Your task to perform on an android device: turn on translation in the chrome app Image 0: 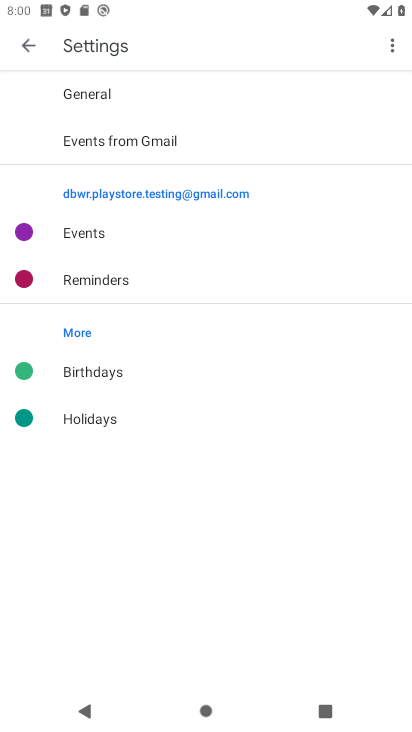
Step 0: press home button
Your task to perform on an android device: turn on translation in the chrome app Image 1: 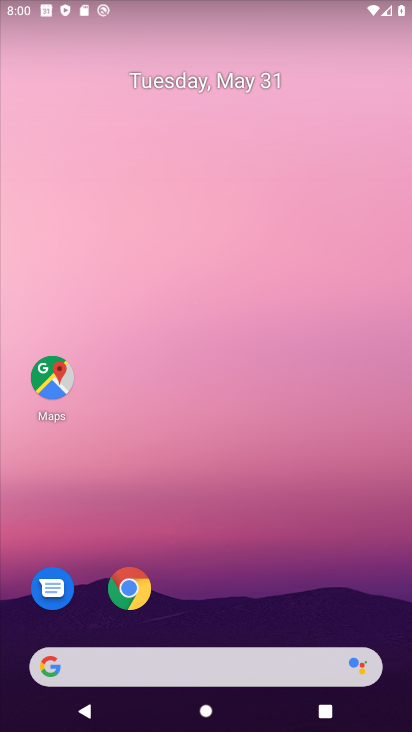
Step 1: click (114, 588)
Your task to perform on an android device: turn on translation in the chrome app Image 2: 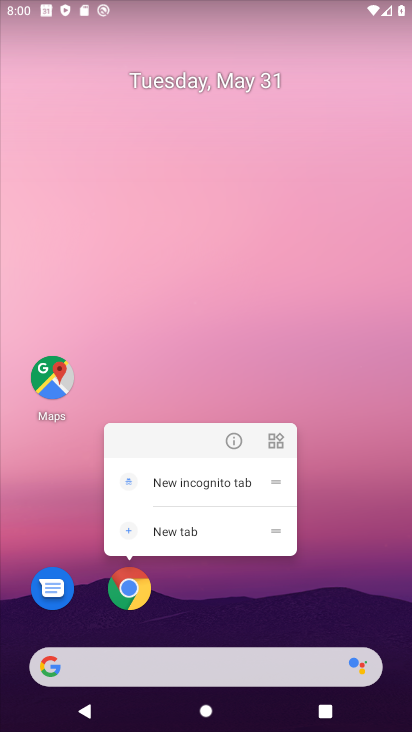
Step 2: click (126, 594)
Your task to perform on an android device: turn on translation in the chrome app Image 3: 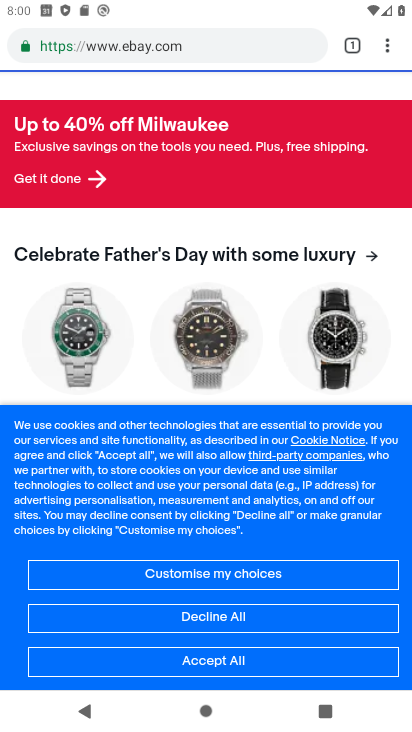
Step 3: click (385, 44)
Your task to perform on an android device: turn on translation in the chrome app Image 4: 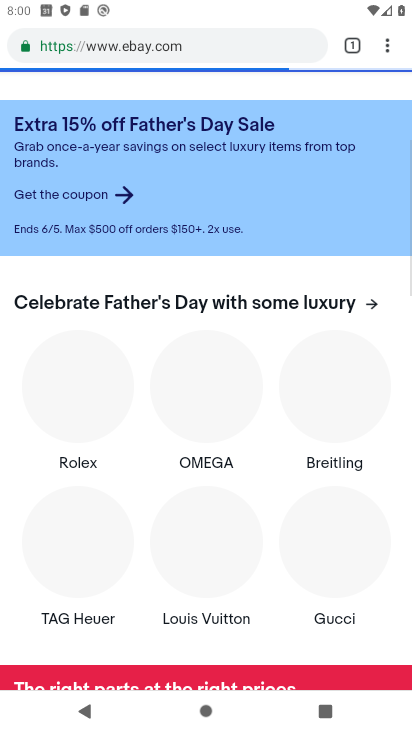
Step 4: click (387, 46)
Your task to perform on an android device: turn on translation in the chrome app Image 5: 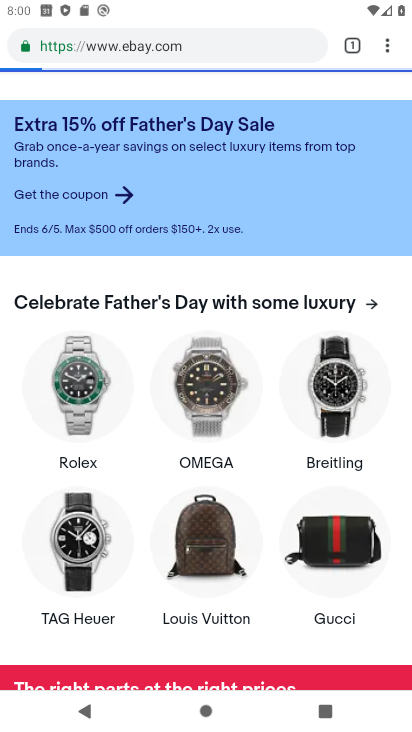
Step 5: click (393, 54)
Your task to perform on an android device: turn on translation in the chrome app Image 6: 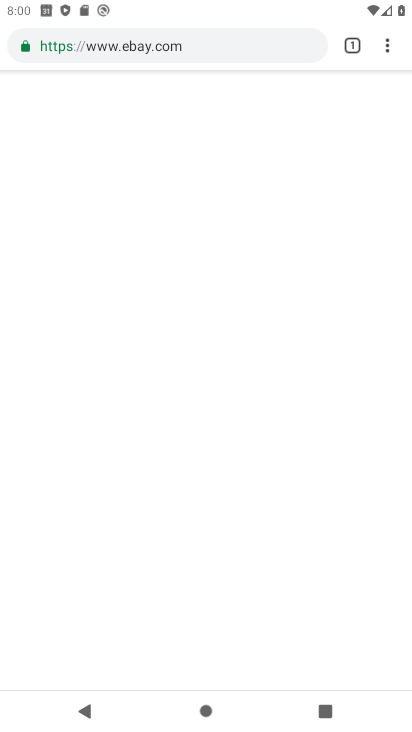
Step 6: click (386, 43)
Your task to perform on an android device: turn on translation in the chrome app Image 7: 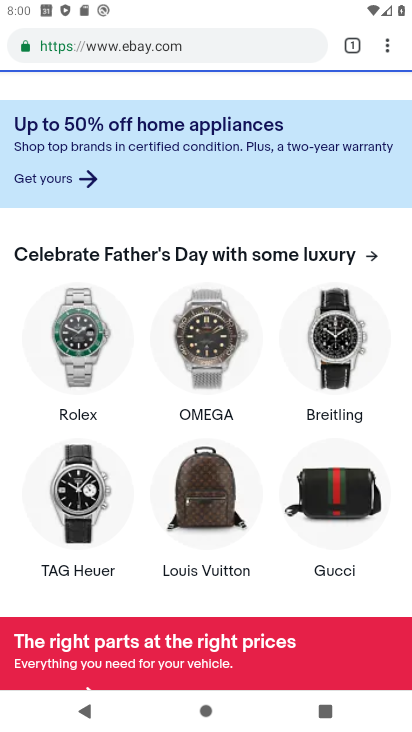
Step 7: click (388, 53)
Your task to perform on an android device: turn on translation in the chrome app Image 8: 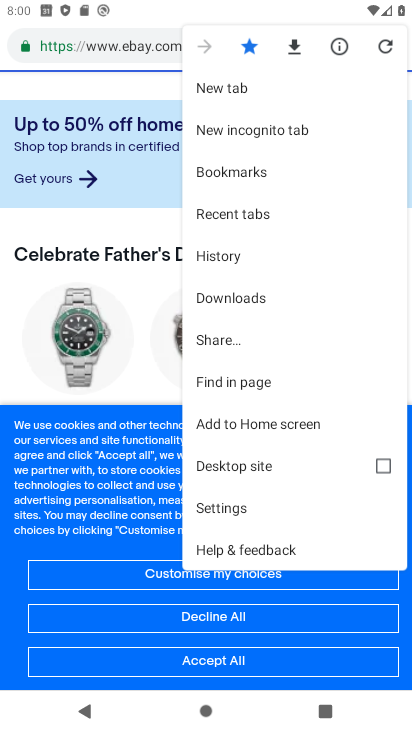
Step 8: click (210, 496)
Your task to perform on an android device: turn on translation in the chrome app Image 9: 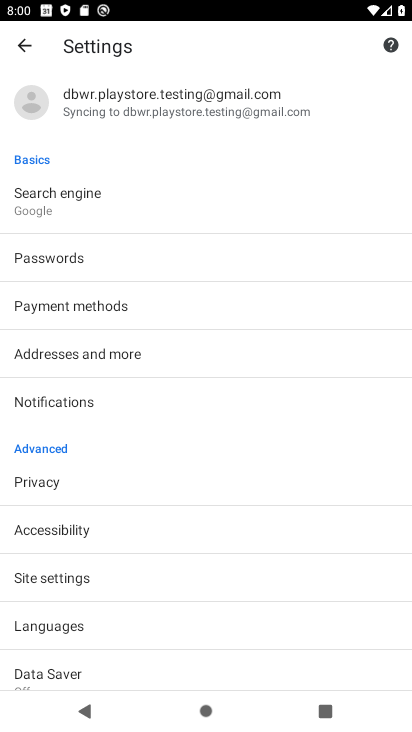
Step 9: click (57, 633)
Your task to perform on an android device: turn on translation in the chrome app Image 10: 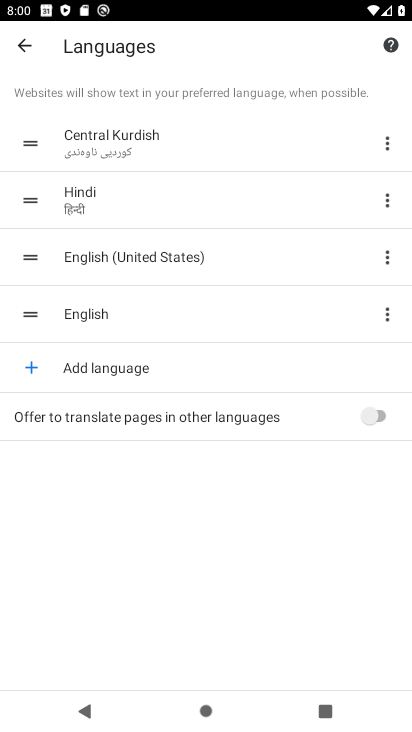
Step 10: click (378, 410)
Your task to perform on an android device: turn on translation in the chrome app Image 11: 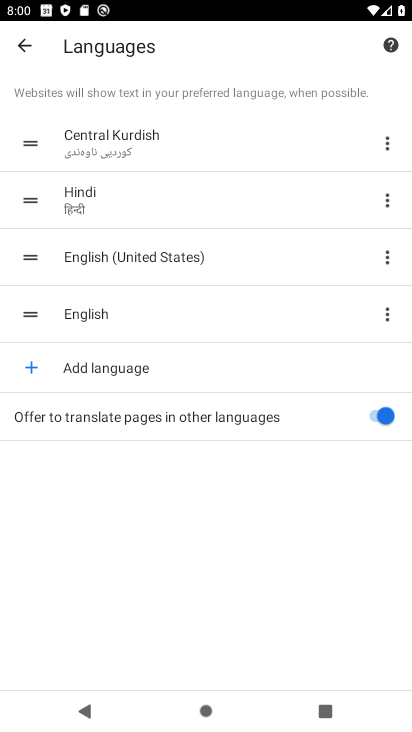
Step 11: task complete